Your task to perform on an android device: star an email in the gmail app Image 0: 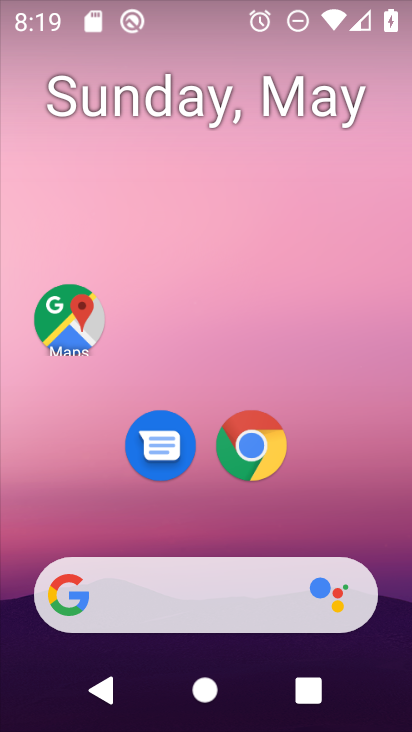
Step 0: drag from (273, 602) to (314, 159)
Your task to perform on an android device: star an email in the gmail app Image 1: 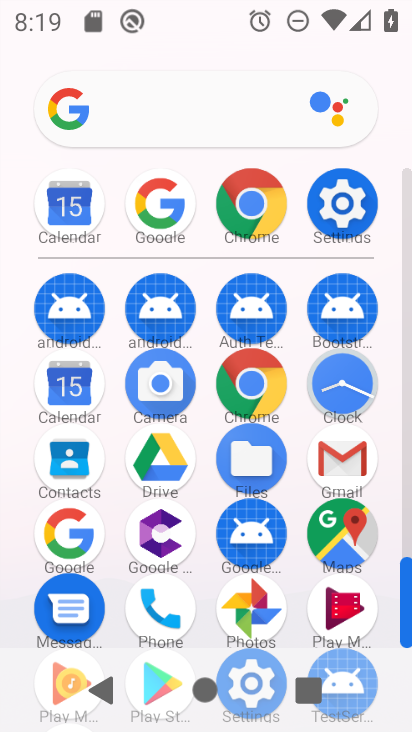
Step 1: click (332, 466)
Your task to perform on an android device: star an email in the gmail app Image 2: 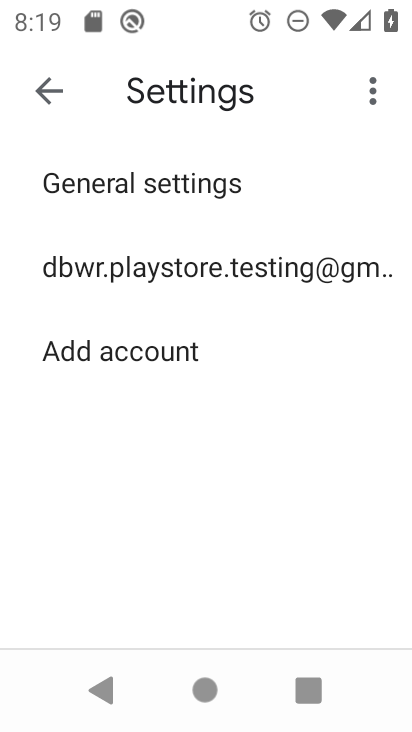
Step 2: click (52, 100)
Your task to perform on an android device: star an email in the gmail app Image 3: 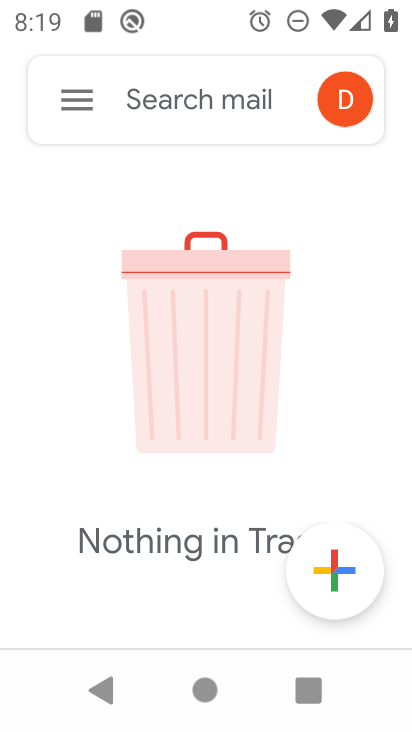
Step 3: click (80, 91)
Your task to perform on an android device: star an email in the gmail app Image 4: 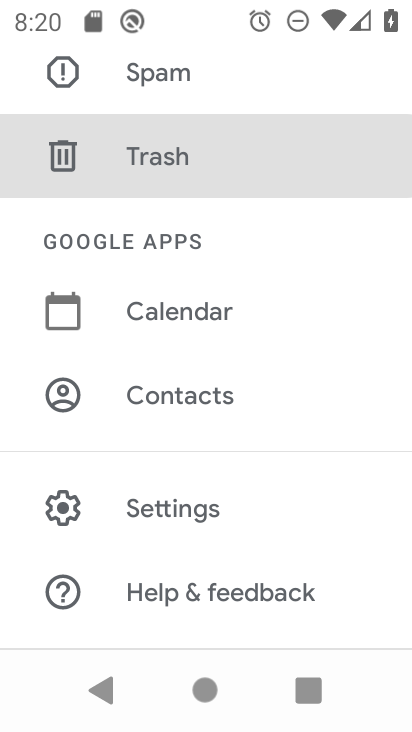
Step 4: drag from (165, 445) to (199, 33)
Your task to perform on an android device: star an email in the gmail app Image 5: 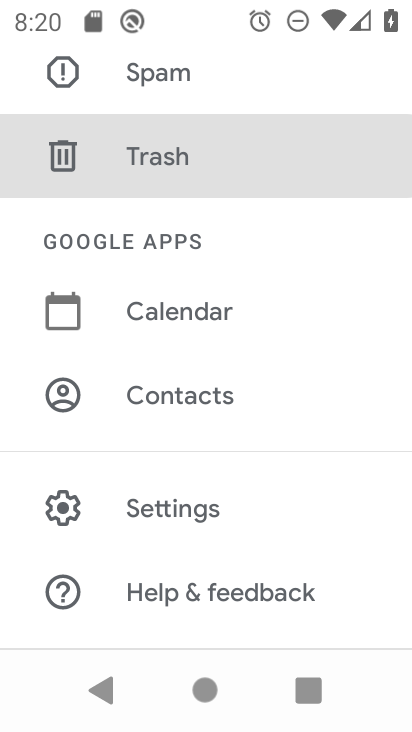
Step 5: drag from (198, 209) to (154, 459)
Your task to perform on an android device: star an email in the gmail app Image 6: 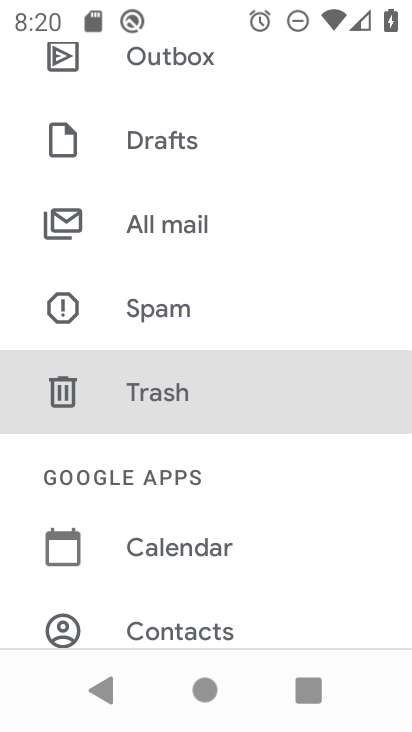
Step 6: click (181, 226)
Your task to perform on an android device: star an email in the gmail app Image 7: 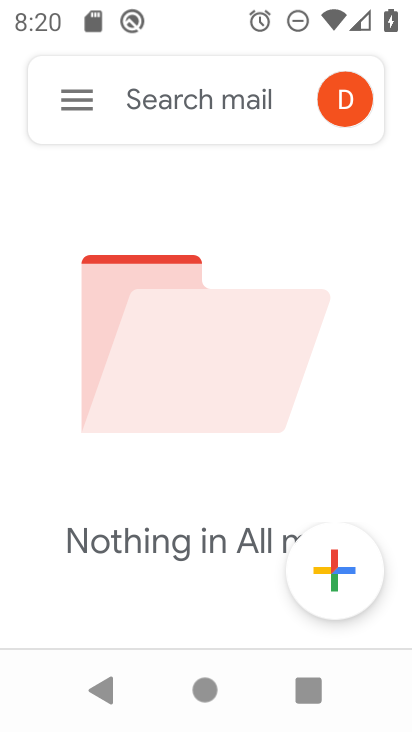
Step 7: task complete